Your task to perform on an android device: search for starred emails in the gmail app Image 0: 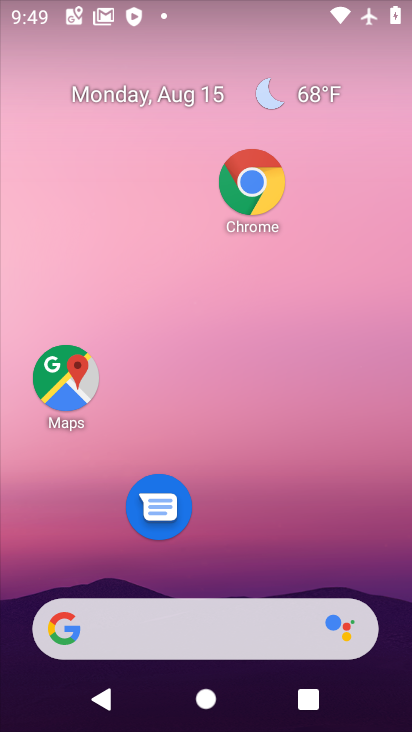
Step 0: drag from (341, 576) to (299, 50)
Your task to perform on an android device: search for starred emails in the gmail app Image 1: 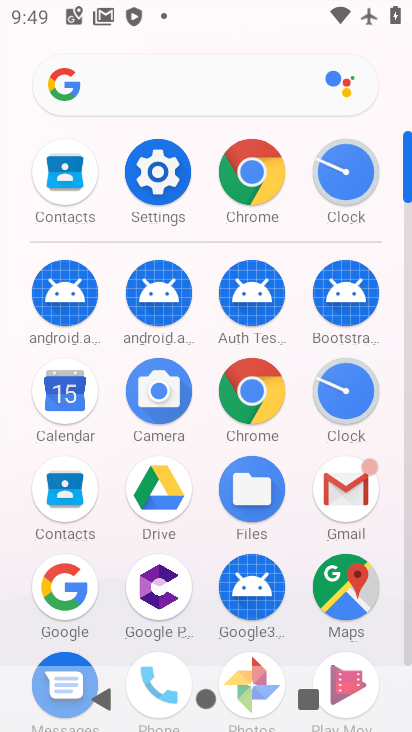
Step 1: click (331, 487)
Your task to perform on an android device: search for starred emails in the gmail app Image 2: 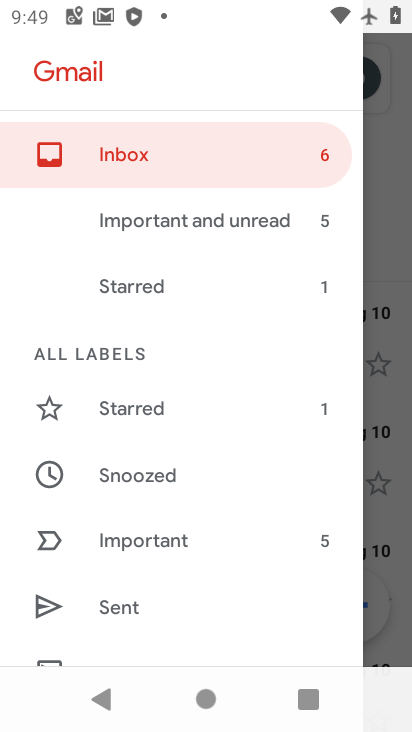
Step 2: task complete